Your task to perform on an android device: Open the Play Movies app and select the watchlist tab. Image 0: 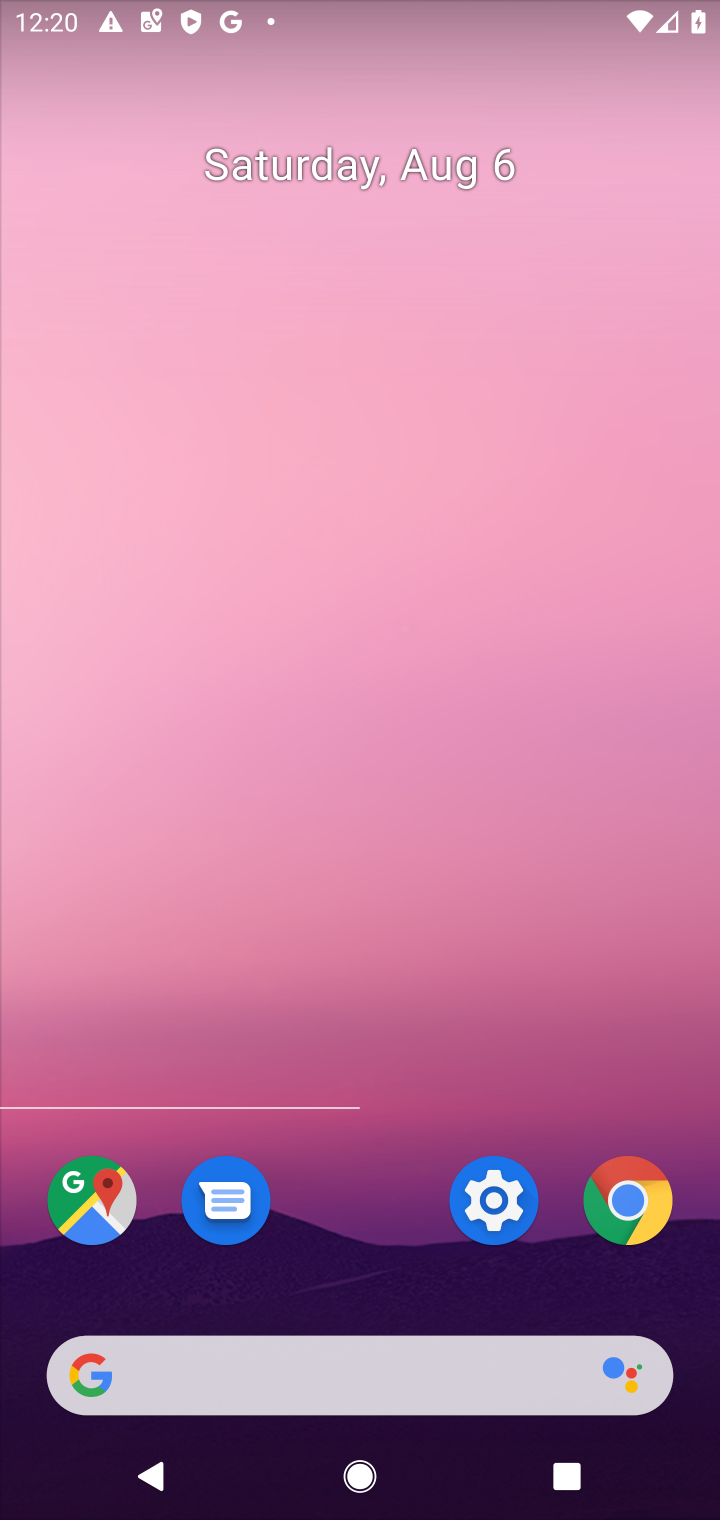
Step 0: press back button
Your task to perform on an android device: Open the Play Movies app and select the watchlist tab. Image 1: 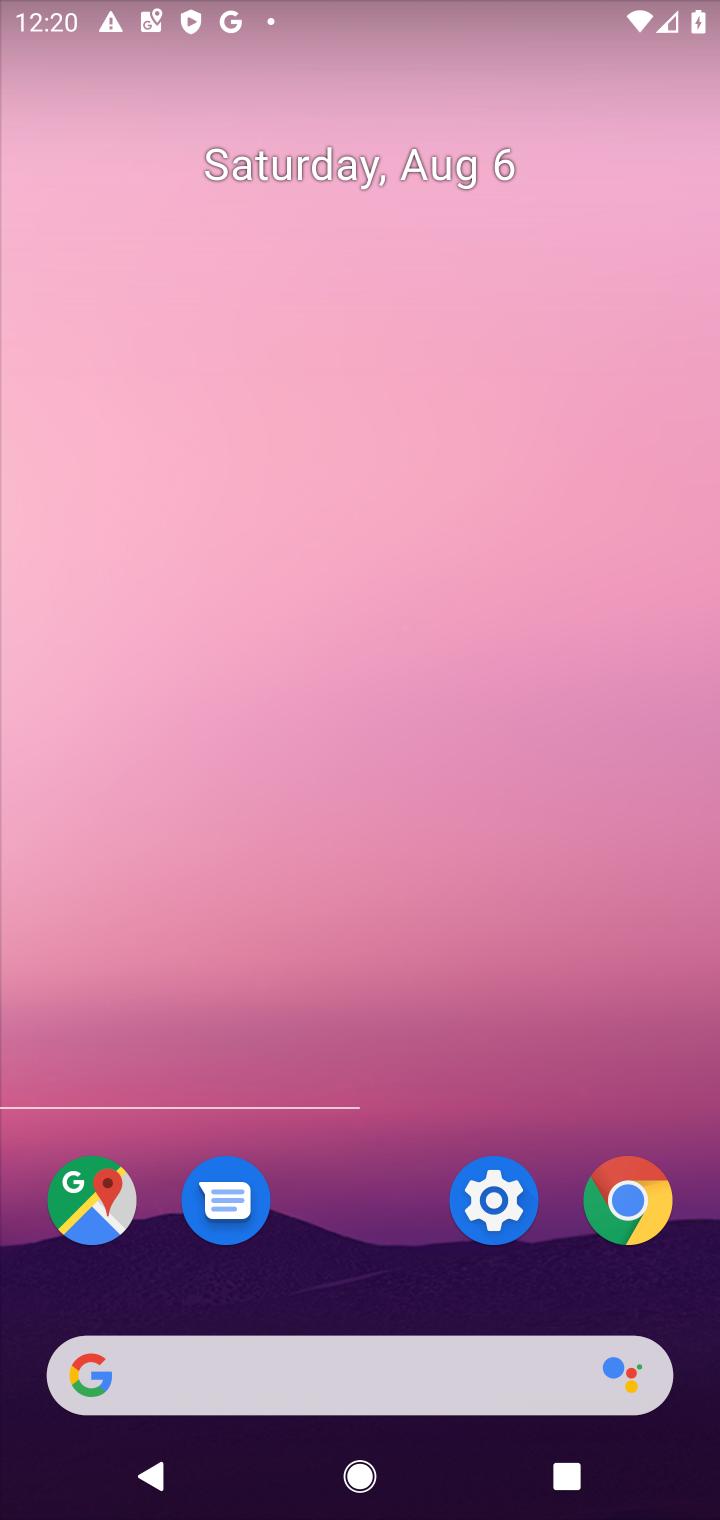
Step 1: click (347, 15)
Your task to perform on an android device: Open the Play Movies app and select the watchlist tab. Image 2: 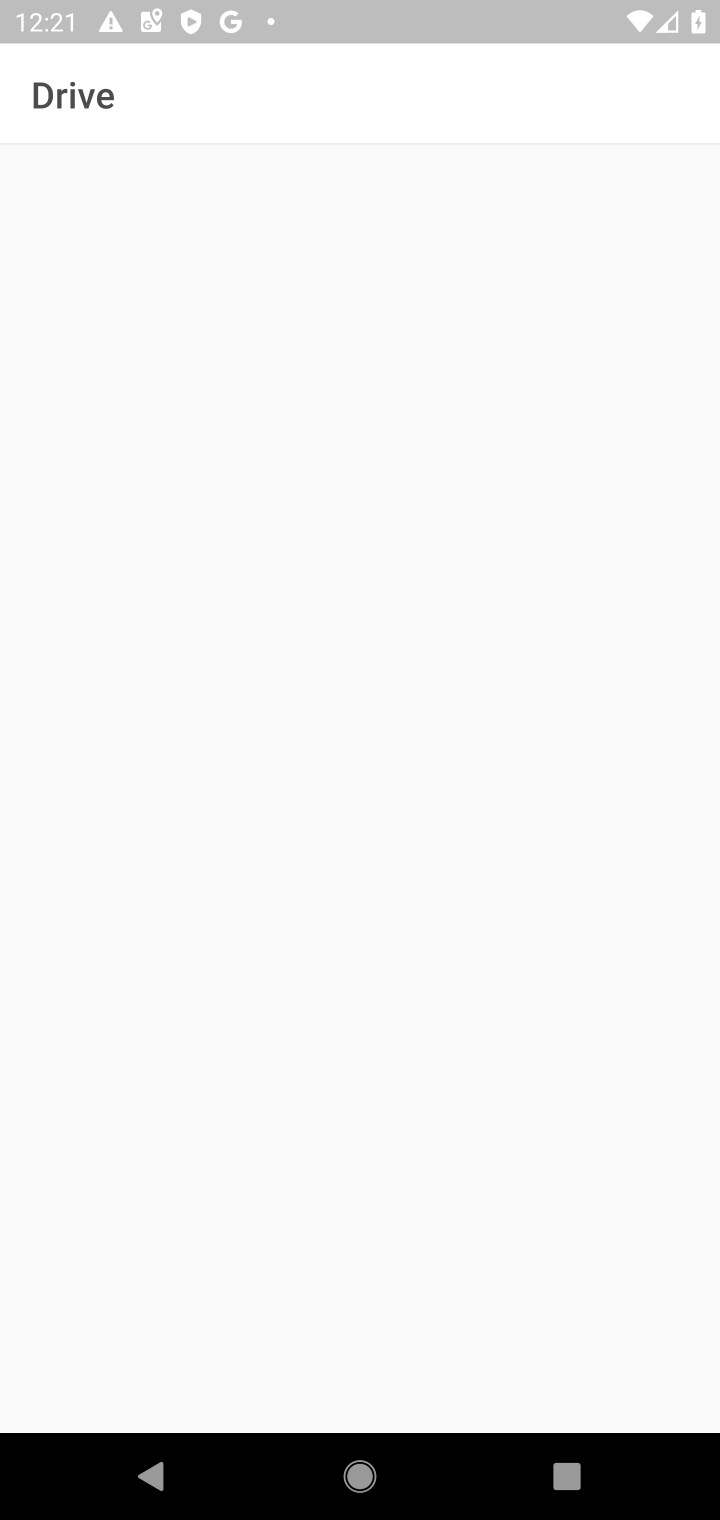
Step 2: press back button
Your task to perform on an android device: Open the Play Movies app and select the watchlist tab. Image 3: 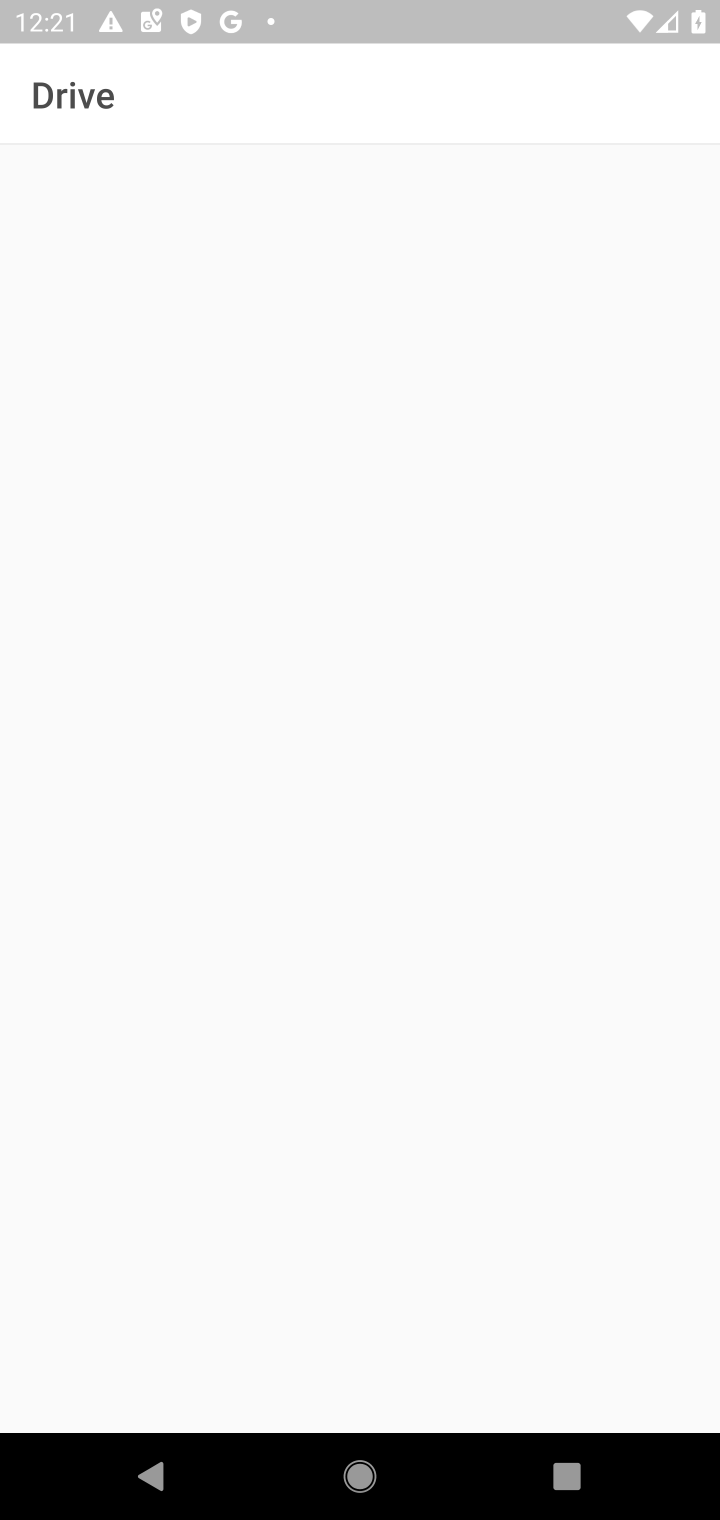
Step 3: press home button
Your task to perform on an android device: Open the Play Movies app and select the watchlist tab. Image 4: 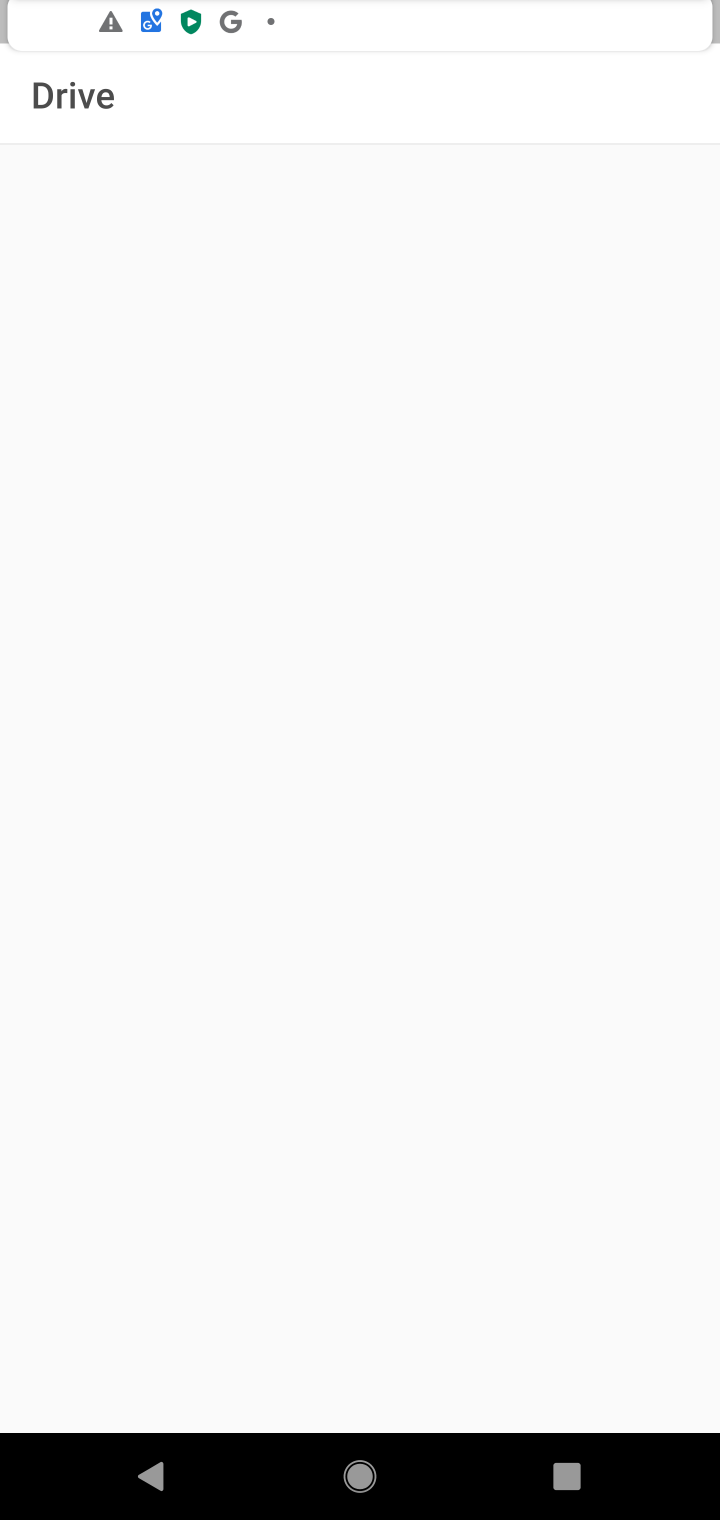
Step 4: click (339, 101)
Your task to perform on an android device: Open the Play Movies app and select the watchlist tab. Image 5: 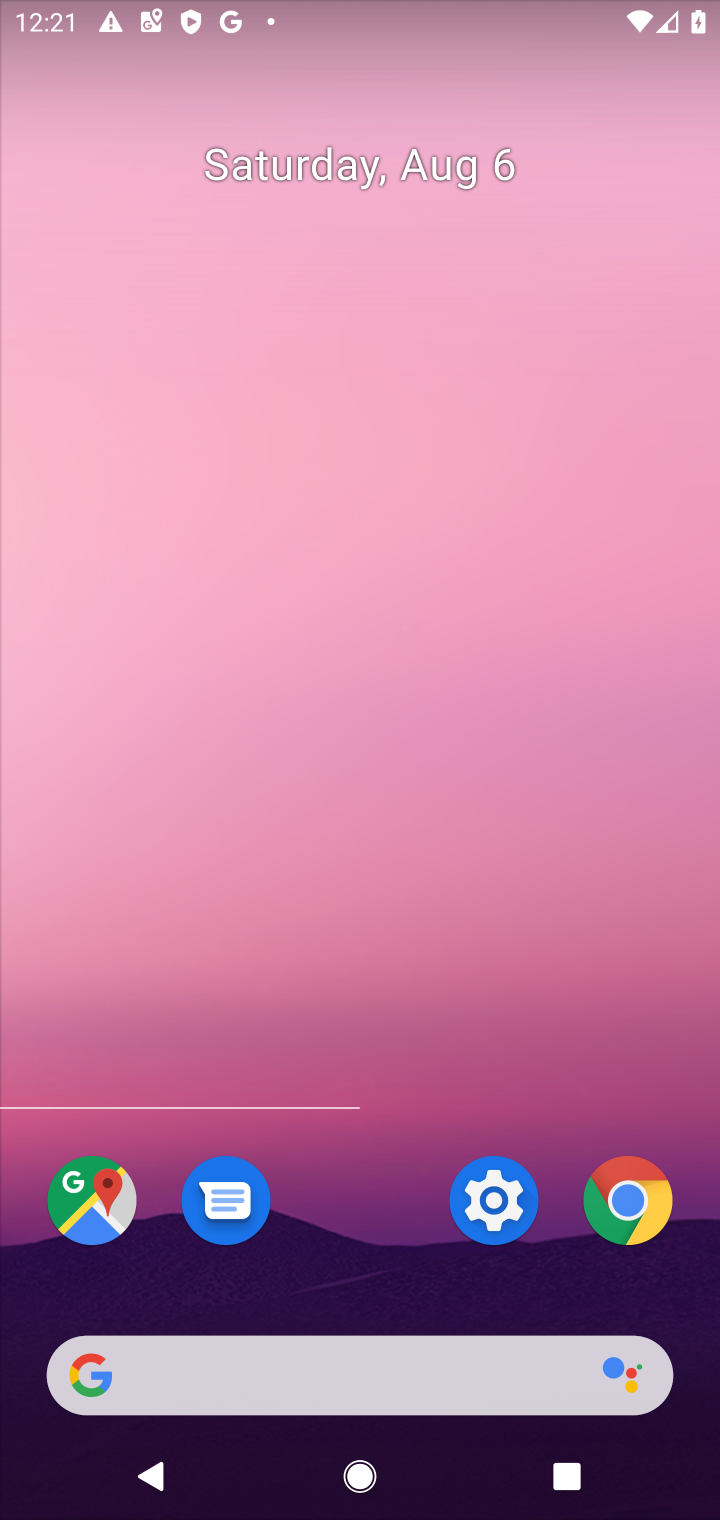
Step 5: drag from (211, 1117) to (340, 678)
Your task to perform on an android device: Open the Play Movies app and select the watchlist tab. Image 6: 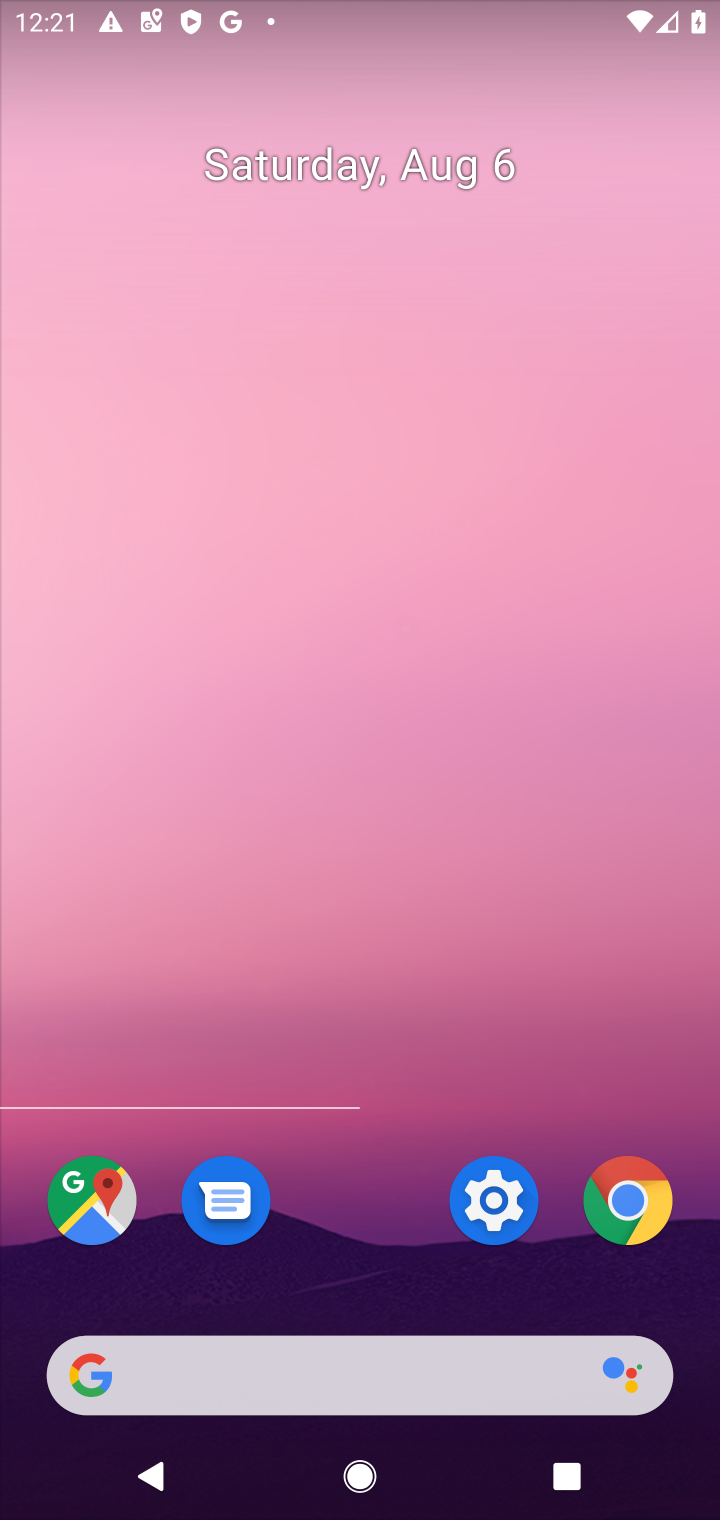
Step 6: drag from (442, 686) to (397, 590)
Your task to perform on an android device: Open the Play Movies app and select the watchlist tab. Image 7: 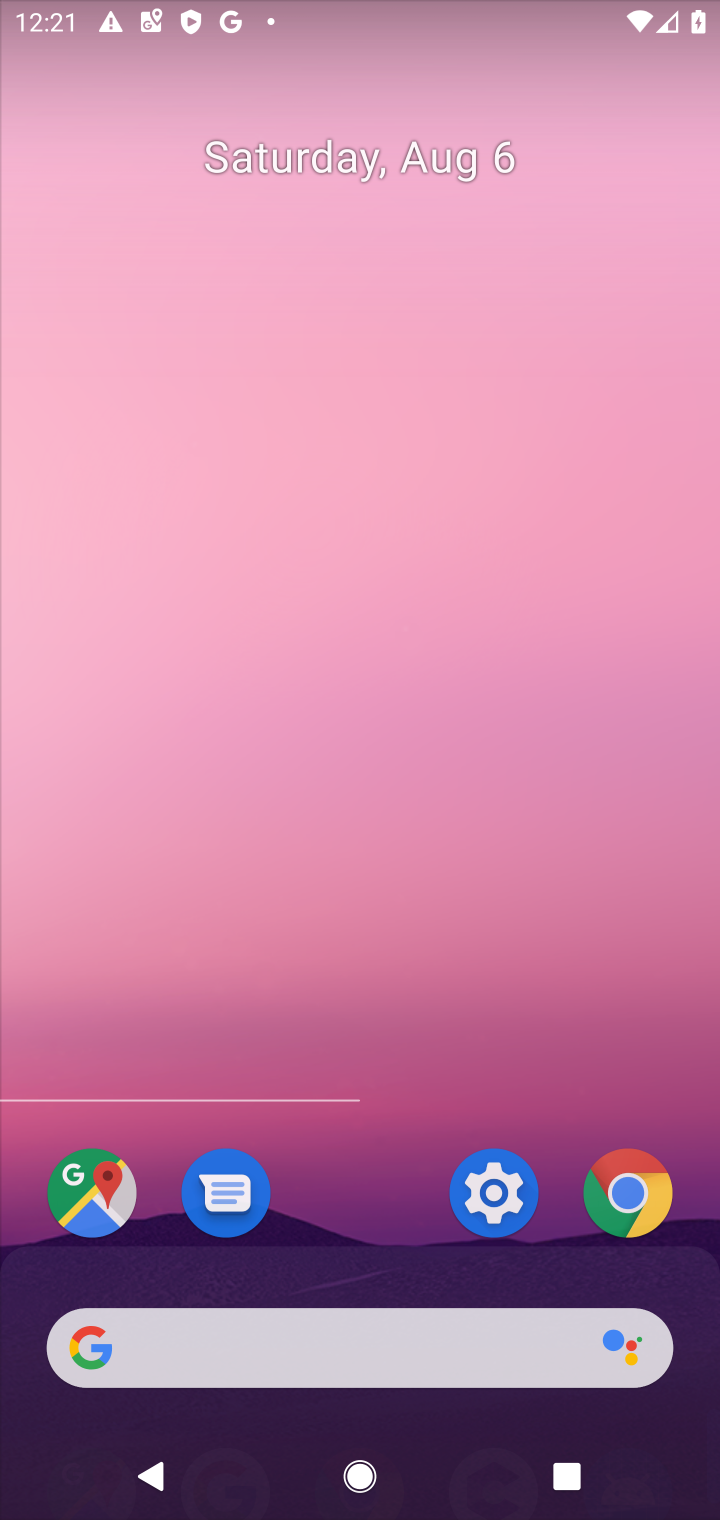
Step 7: drag from (481, 655) to (481, 381)
Your task to perform on an android device: Open the Play Movies app and select the watchlist tab. Image 8: 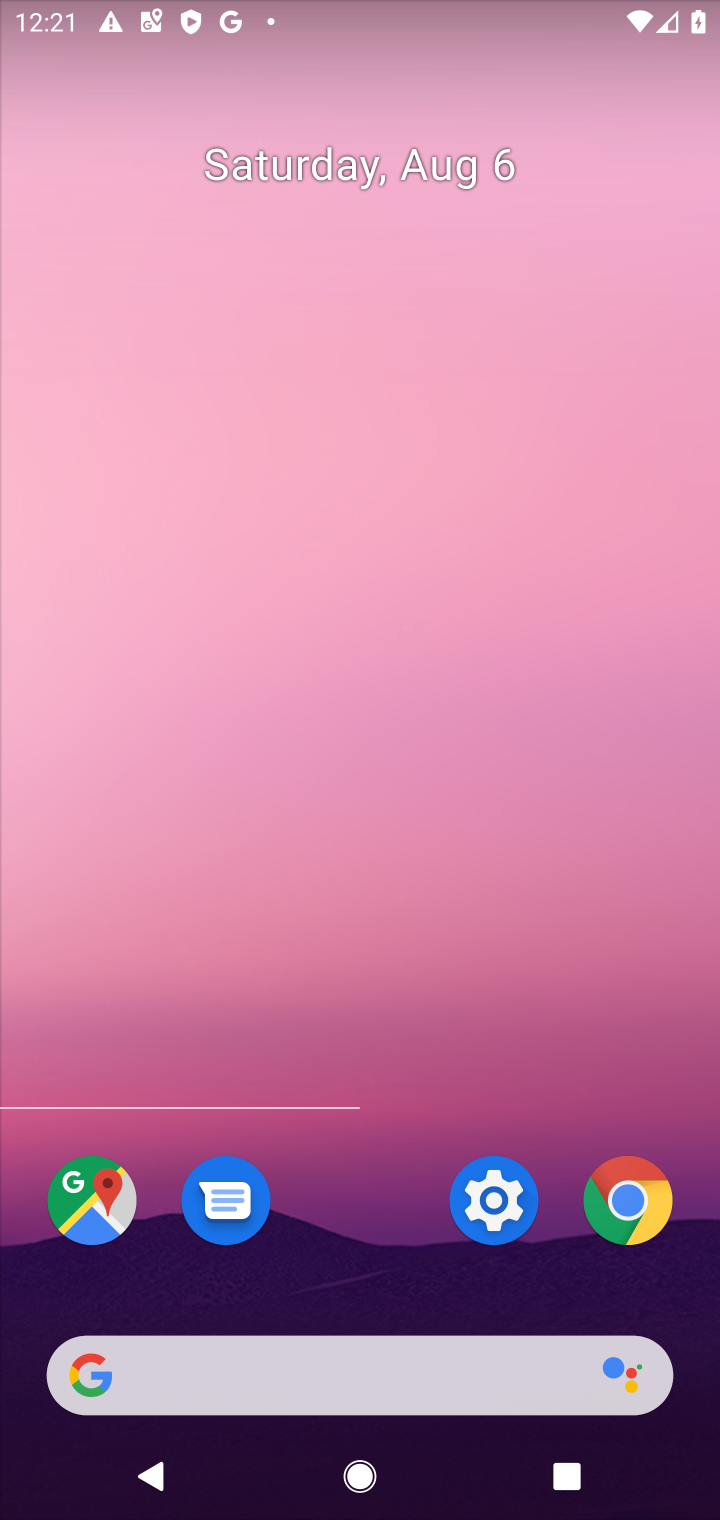
Step 8: click (424, 627)
Your task to perform on an android device: Open the Play Movies app and select the watchlist tab. Image 9: 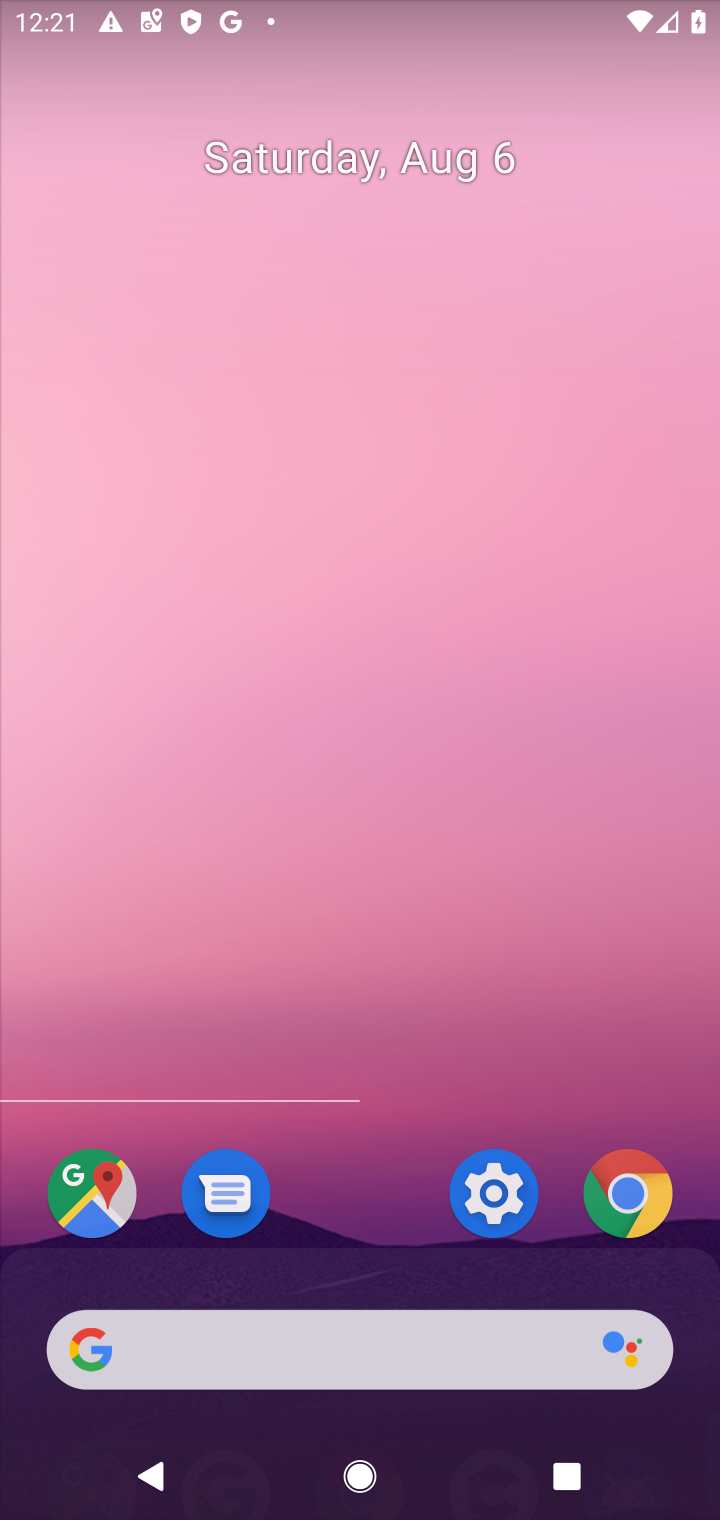
Step 9: drag from (452, 1027) to (452, 528)
Your task to perform on an android device: Open the Play Movies app and select the watchlist tab. Image 10: 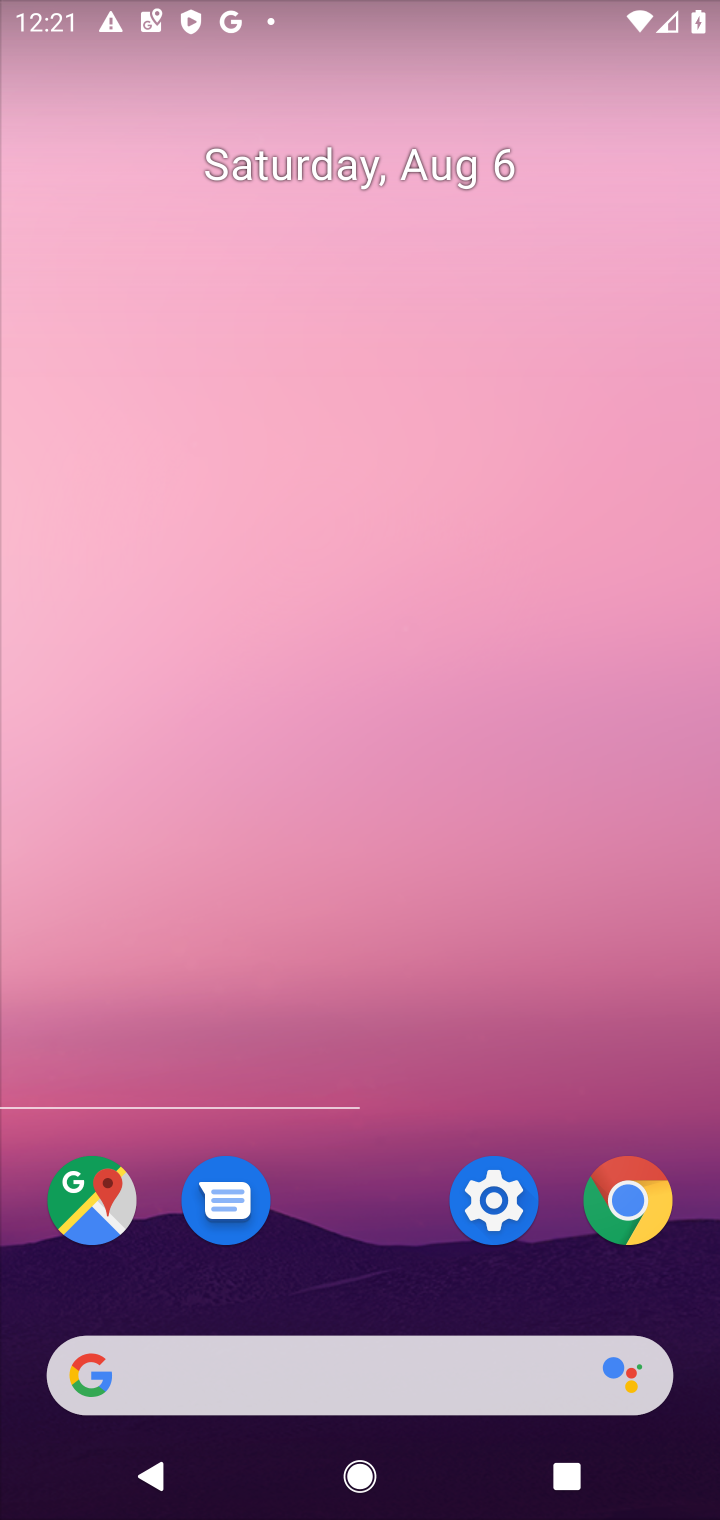
Step 10: drag from (434, 353) to (502, 173)
Your task to perform on an android device: Open the Play Movies app and select the watchlist tab. Image 11: 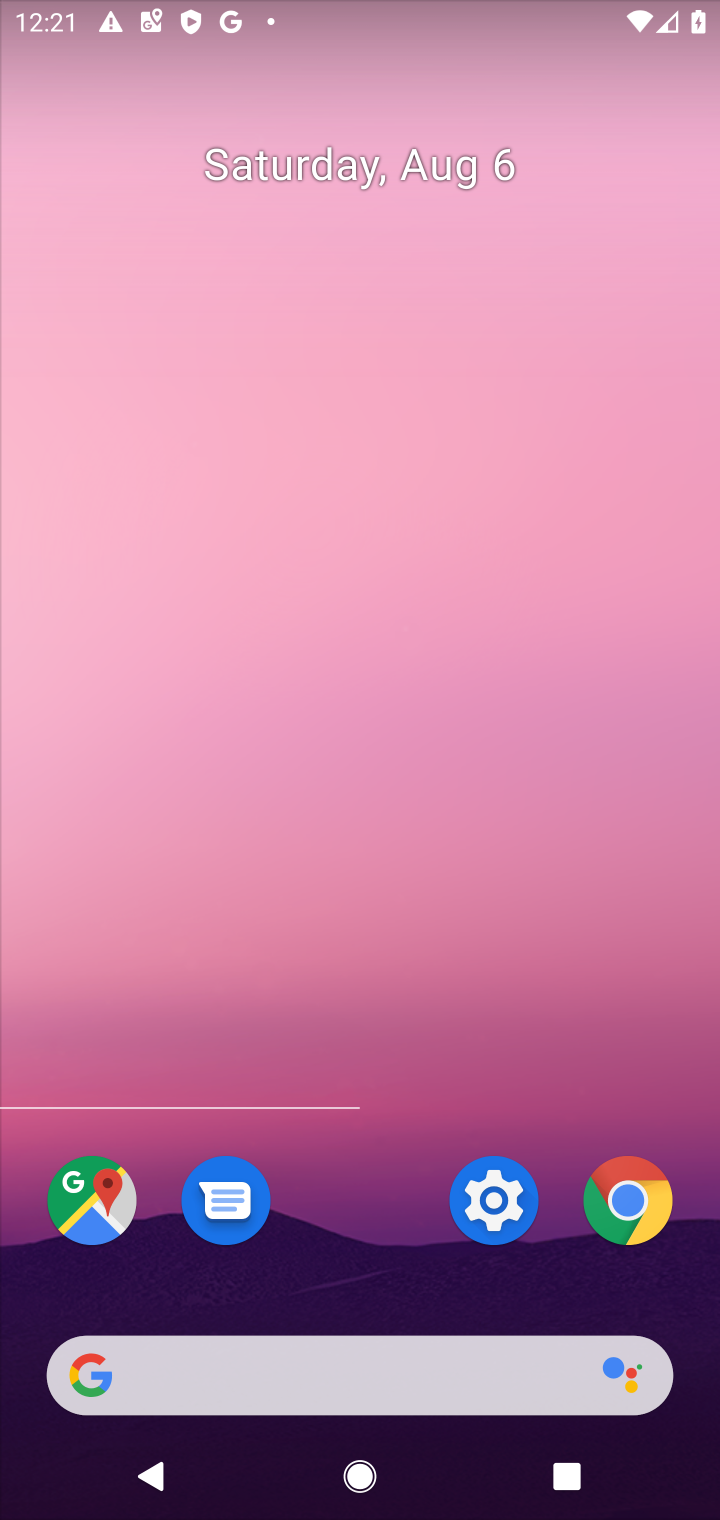
Step 11: drag from (305, 1290) to (412, 893)
Your task to perform on an android device: Open the Play Movies app and select the watchlist tab. Image 12: 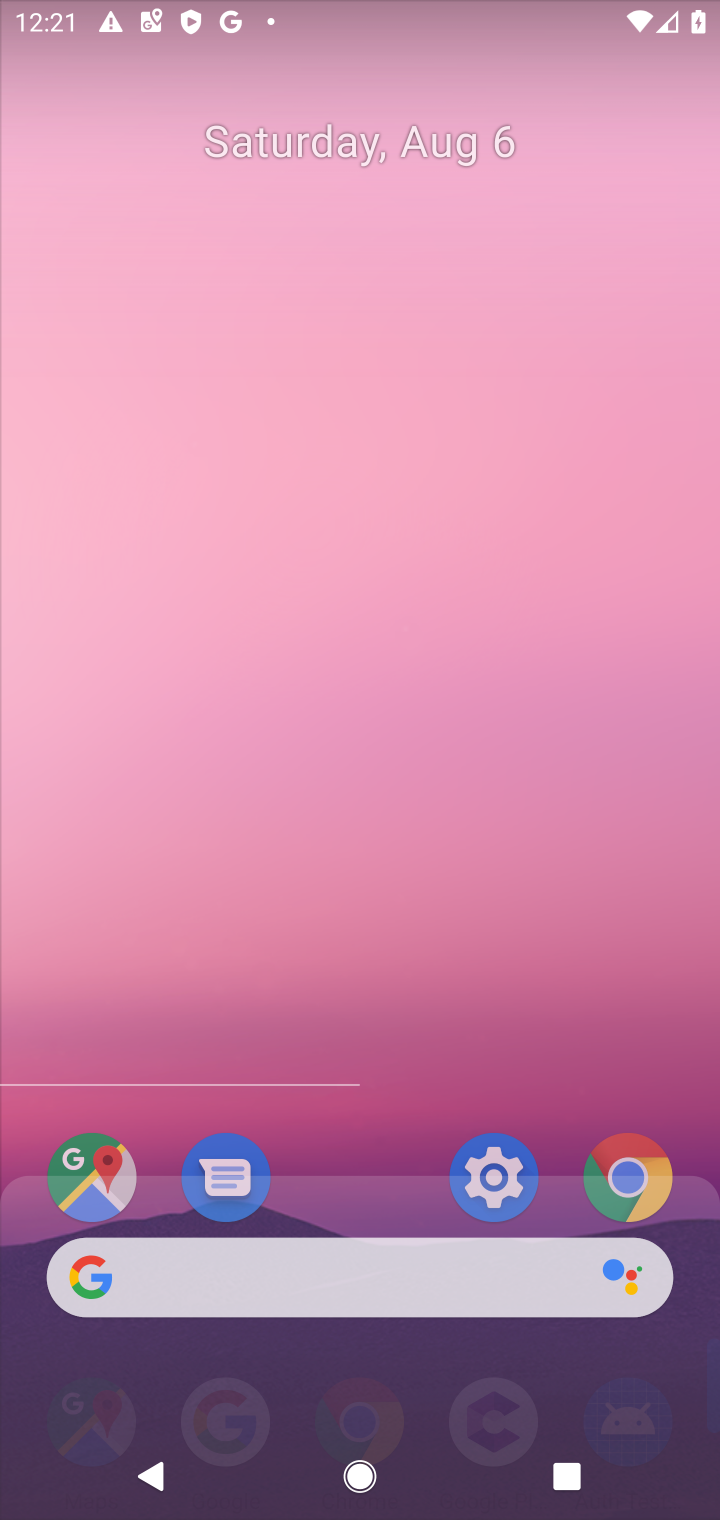
Step 12: drag from (390, 1149) to (328, 438)
Your task to perform on an android device: Open the Play Movies app and select the watchlist tab. Image 13: 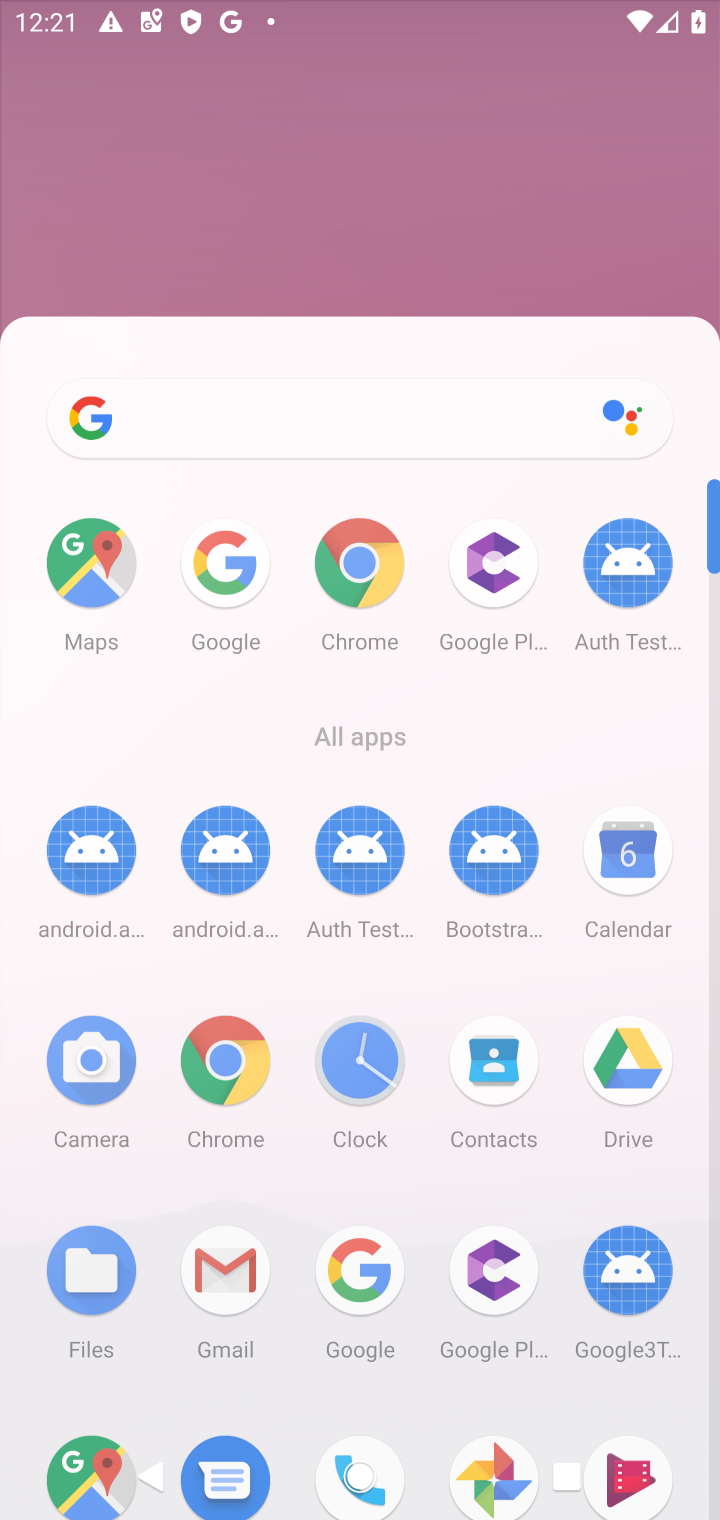
Step 13: drag from (280, 1084) to (349, 420)
Your task to perform on an android device: Open the Play Movies app and select the watchlist tab. Image 14: 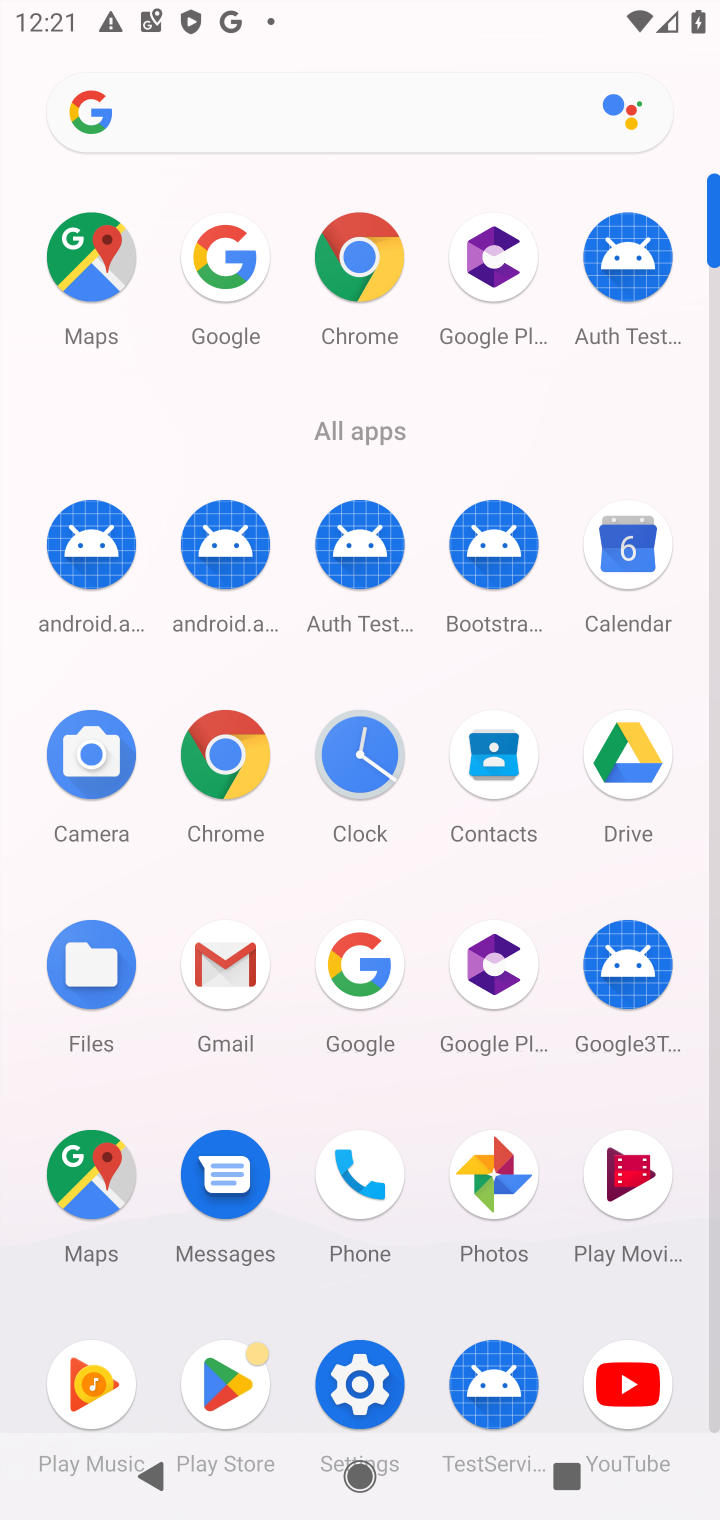
Step 14: click (619, 1155)
Your task to perform on an android device: Open the Play Movies app and select the watchlist tab. Image 15: 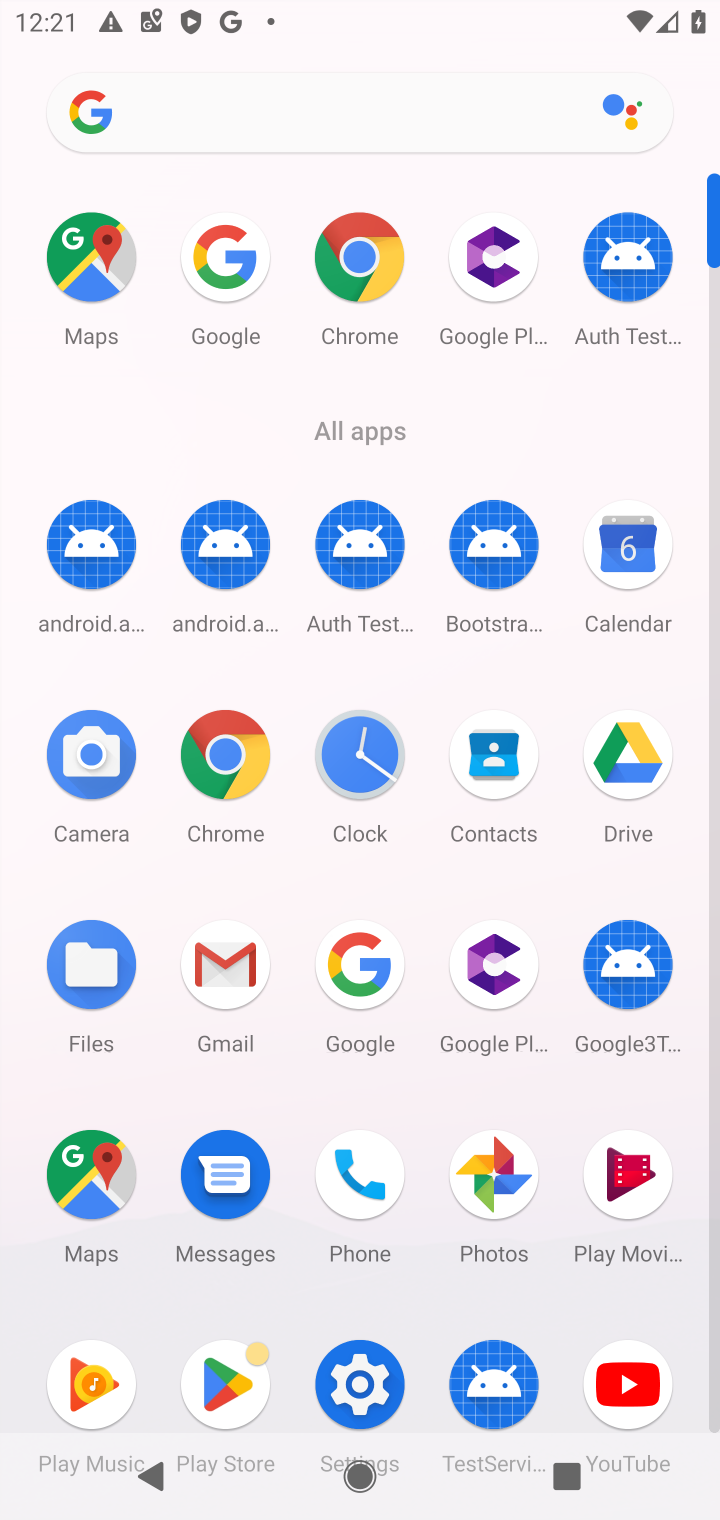
Step 15: click (619, 1155)
Your task to perform on an android device: Open the Play Movies app and select the watchlist tab. Image 16: 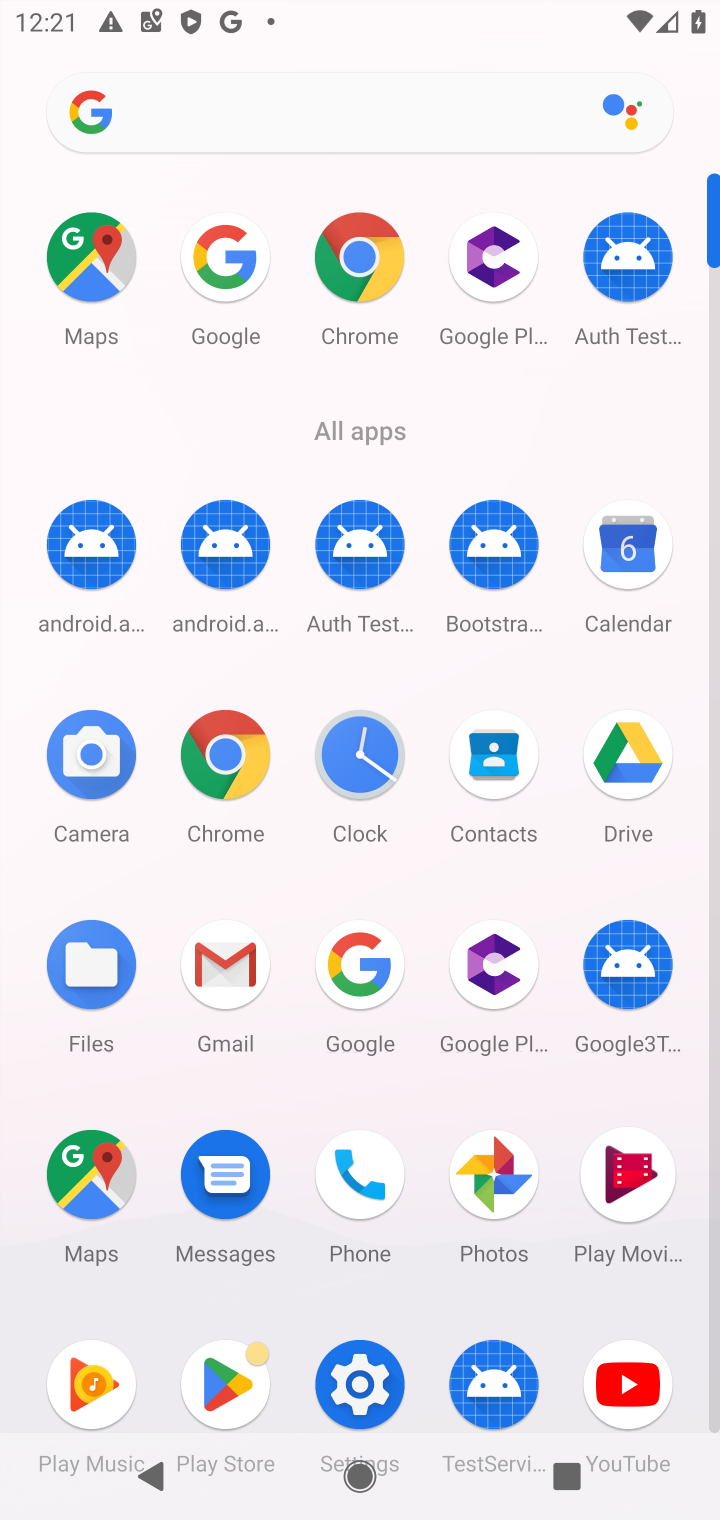
Step 16: click (615, 1215)
Your task to perform on an android device: Open the Play Movies app and select the watchlist tab. Image 17: 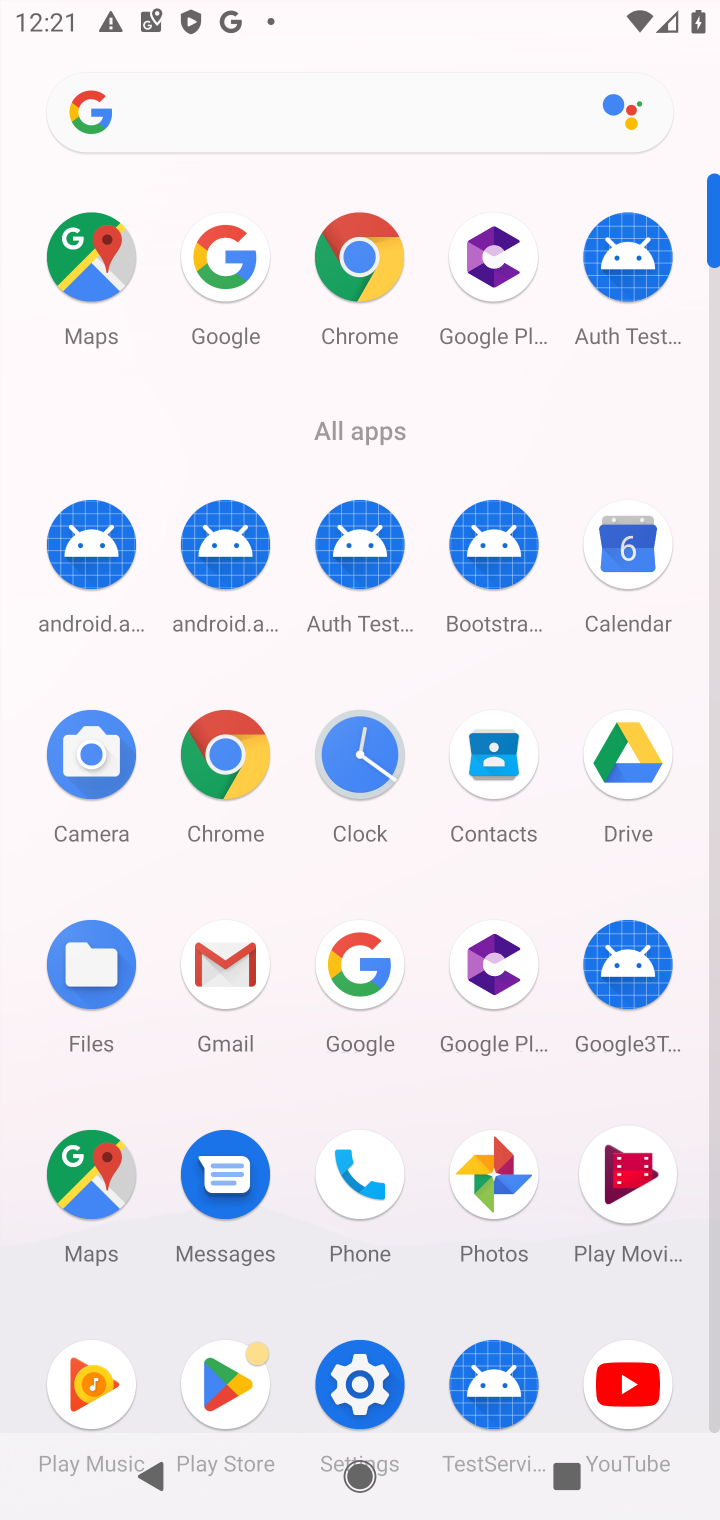
Step 17: click (607, 1150)
Your task to perform on an android device: Open the Play Movies app and select the watchlist tab. Image 18: 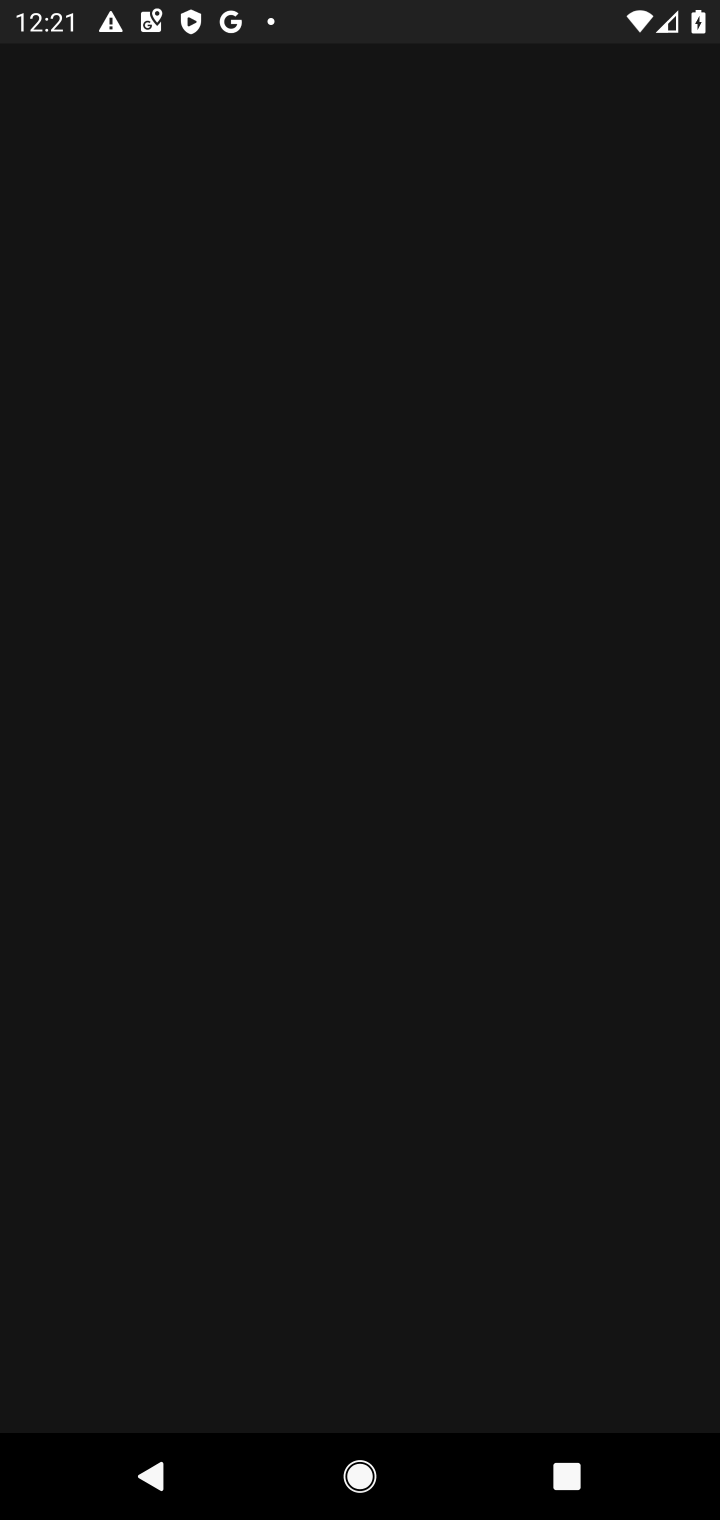
Step 18: click (620, 1156)
Your task to perform on an android device: Open the Play Movies app and select the watchlist tab. Image 19: 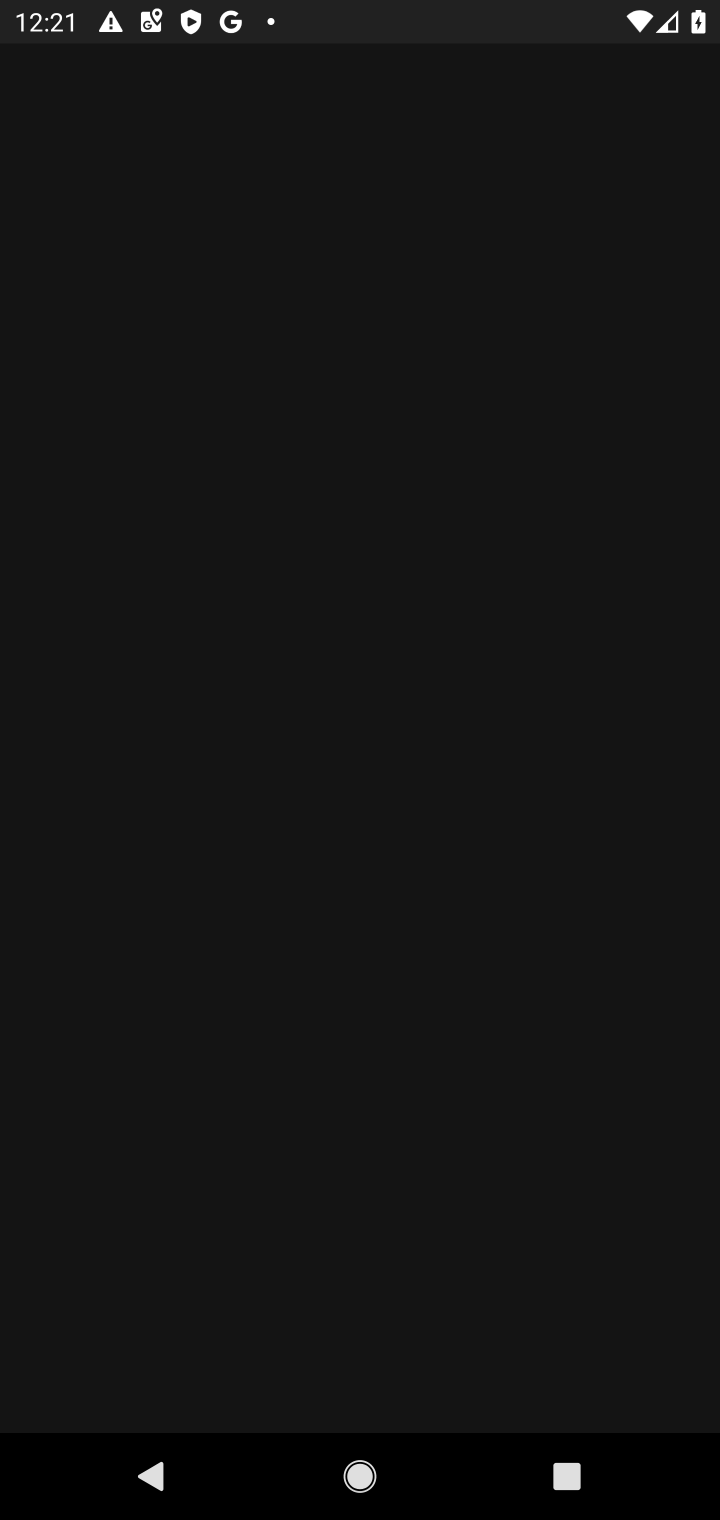
Step 19: click (626, 1173)
Your task to perform on an android device: Open the Play Movies app and select the watchlist tab. Image 20: 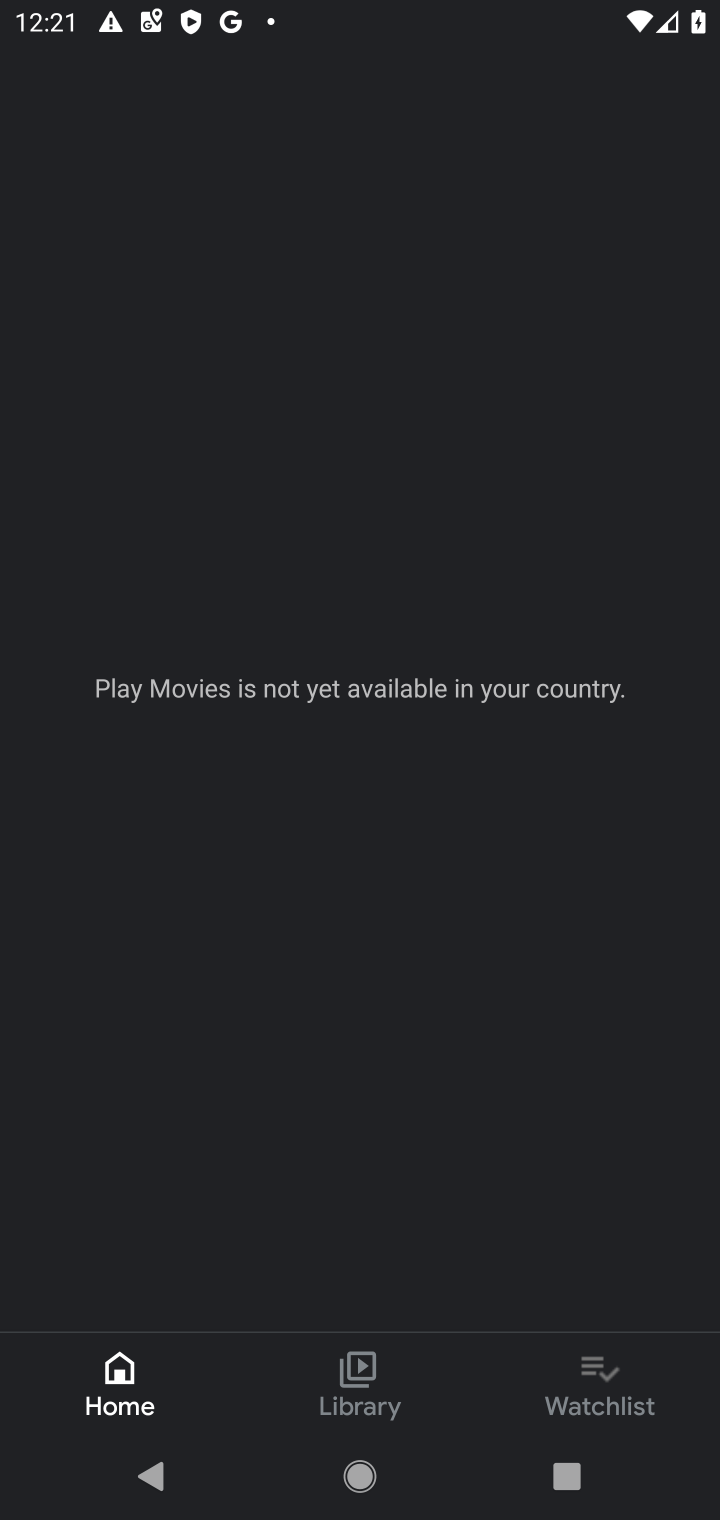
Step 20: click (594, 1396)
Your task to perform on an android device: Open the Play Movies app and select the watchlist tab. Image 21: 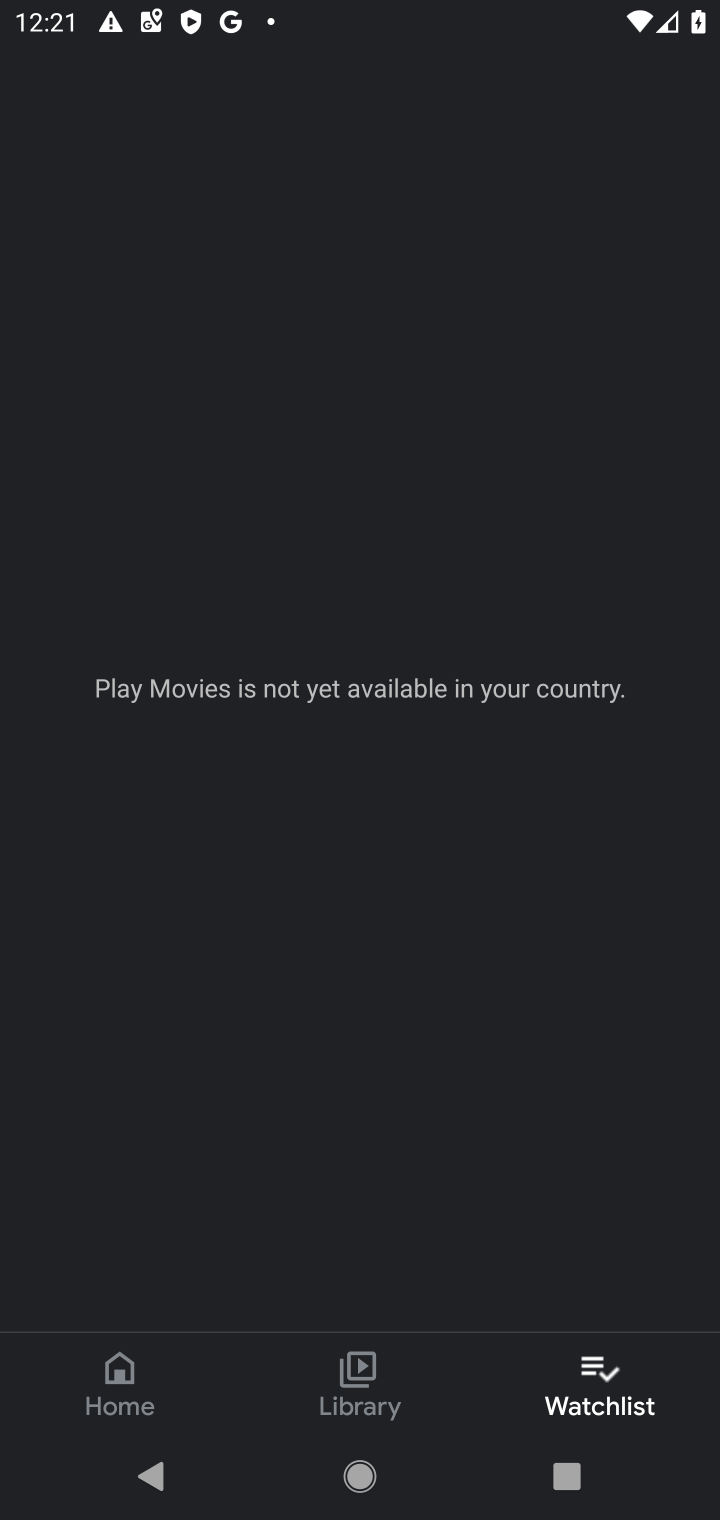
Step 21: click (601, 1398)
Your task to perform on an android device: Open the Play Movies app and select the watchlist tab. Image 22: 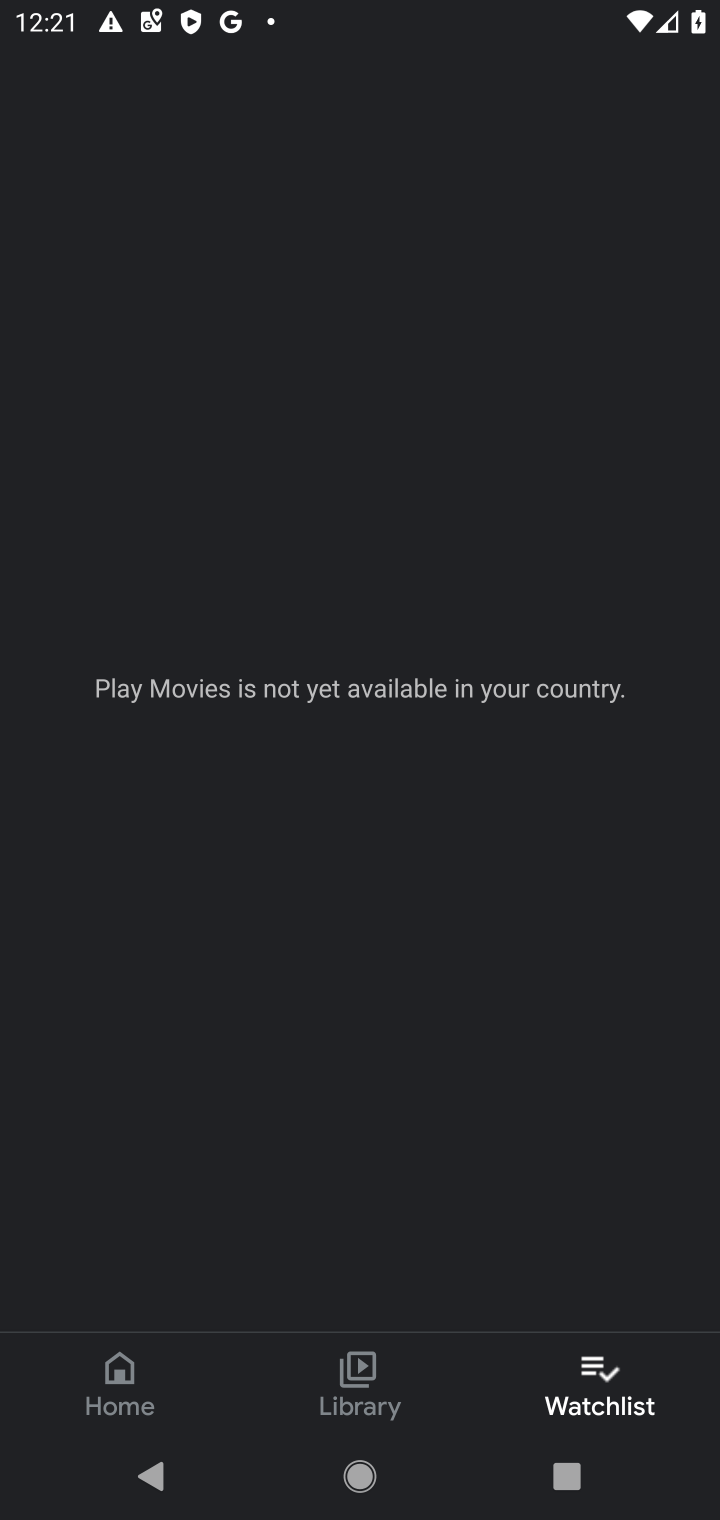
Step 22: task complete